Your task to perform on an android device: open sync settings in chrome Image 0: 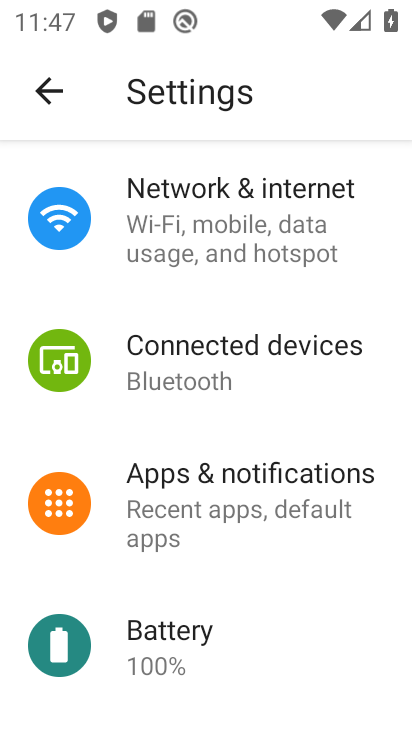
Step 0: press home button
Your task to perform on an android device: open sync settings in chrome Image 1: 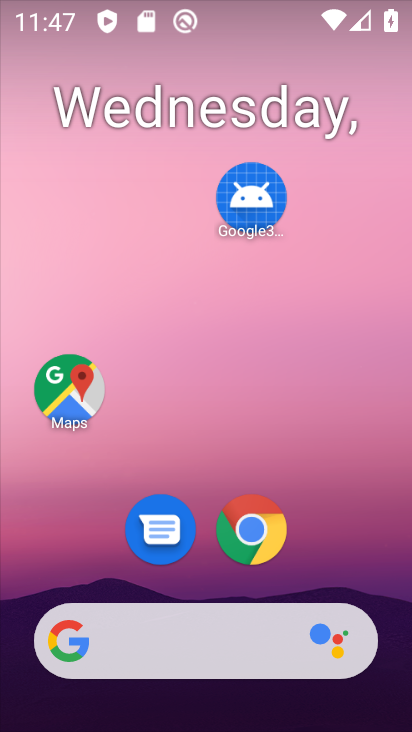
Step 1: click (263, 545)
Your task to perform on an android device: open sync settings in chrome Image 2: 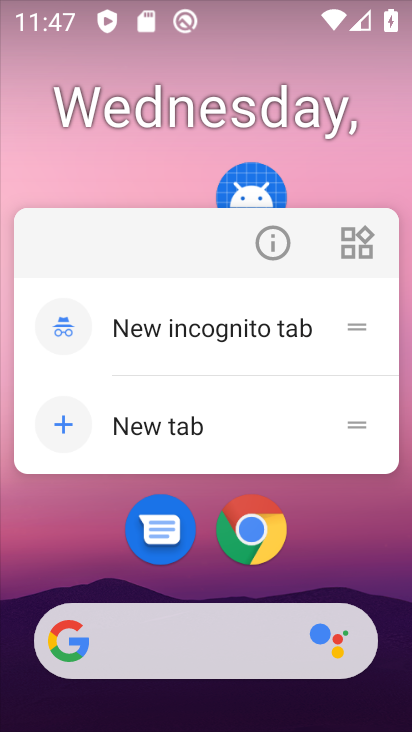
Step 2: click (268, 534)
Your task to perform on an android device: open sync settings in chrome Image 3: 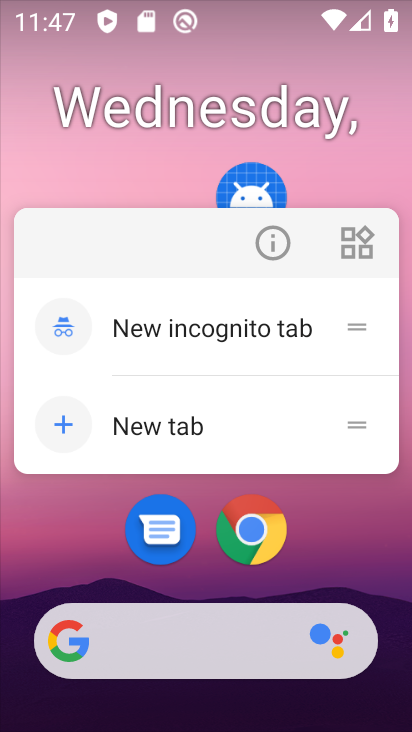
Step 3: click (261, 526)
Your task to perform on an android device: open sync settings in chrome Image 4: 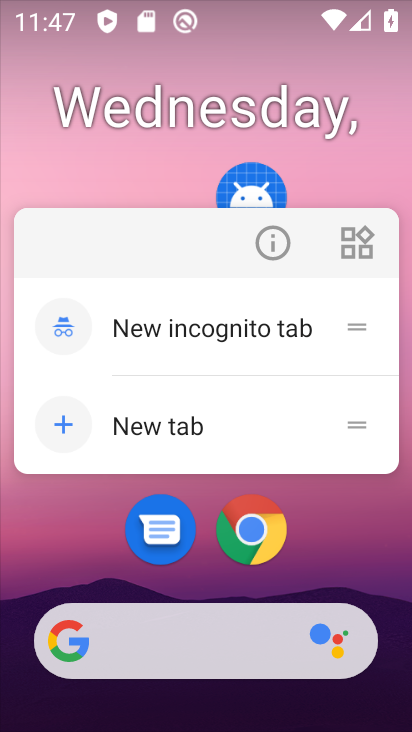
Step 4: click (269, 547)
Your task to perform on an android device: open sync settings in chrome Image 5: 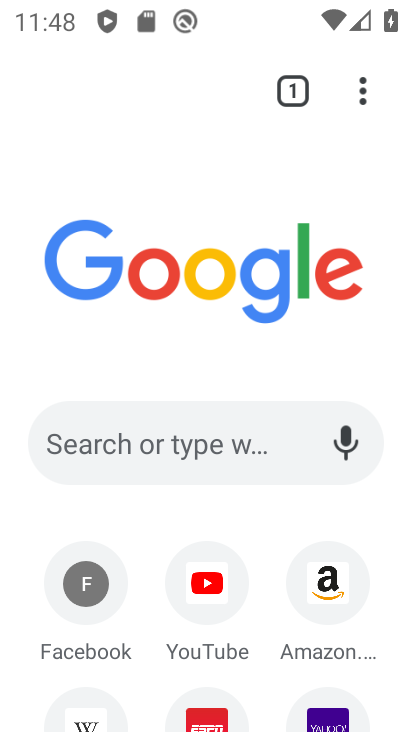
Step 5: drag from (355, 103) to (273, 551)
Your task to perform on an android device: open sync settings in chrome Image 6: 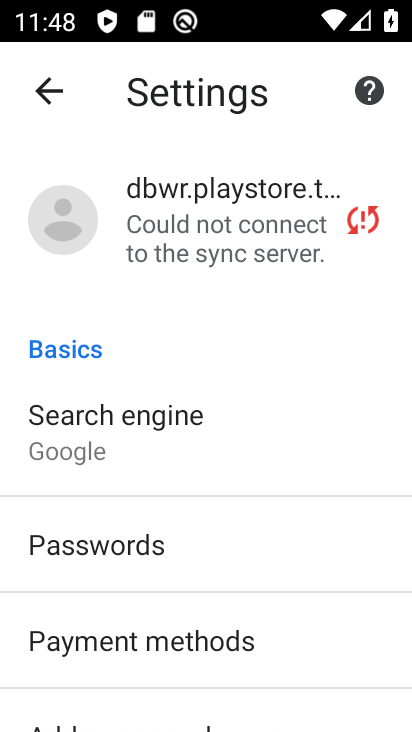
Step 6: drag from (294, 665) to (354, 418)
Your task to perform on an android device: open sync settings in chrome Image 7: 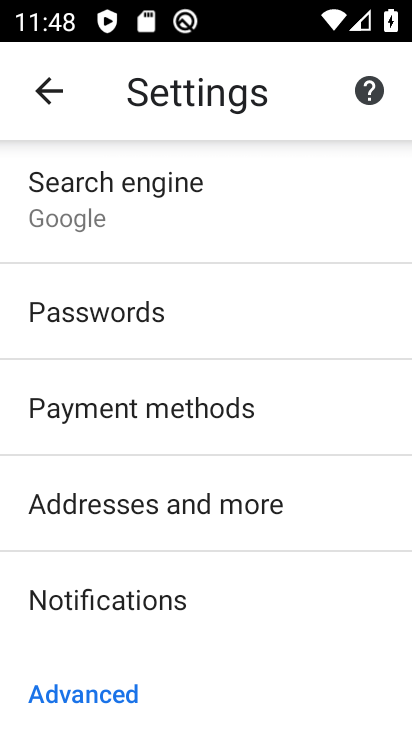
Step 7: drag from (245, 610) to (314, 332)
Your task to perform on an android device: open sync settings in chrome Image 8: 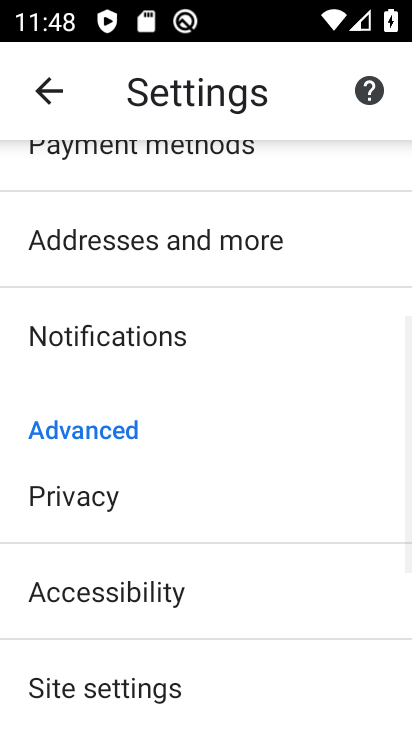
Step 8: drag from (293, 597) to (353, 696)
Your task to perform on an android device: open sync settings in chrome Image 9: 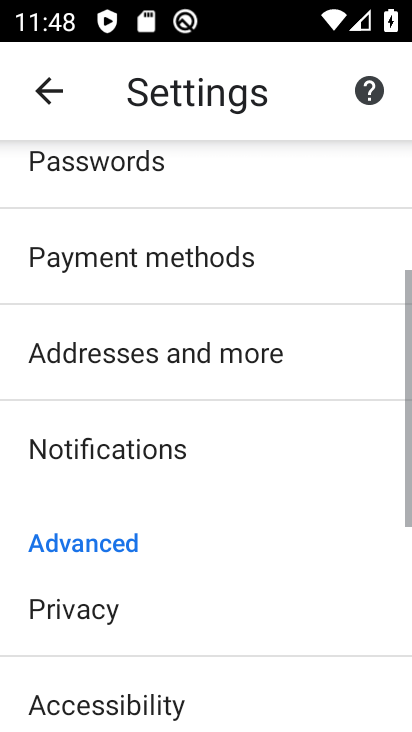
Step 9: drag from (353, 247) to (297, 632)
Your task to perform on an android device: open sync settings in chrome Image 10: 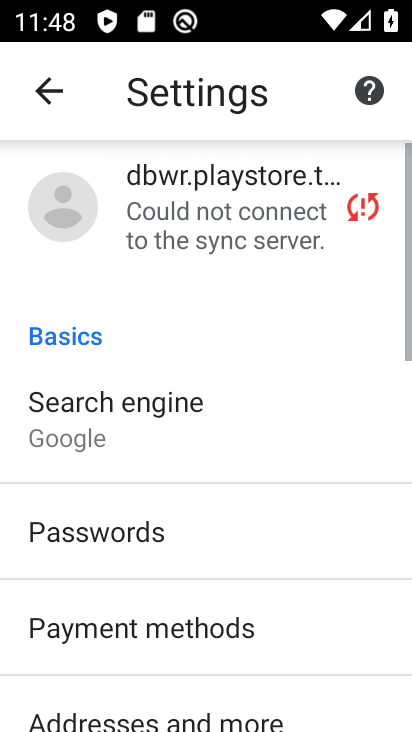
Step 10: click (264, 220)
Your task to perform on an android device: open sync settings in chrome Image 11: 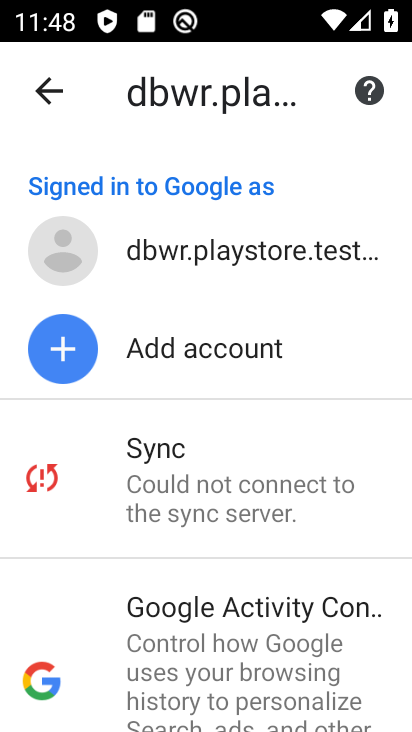
Step 11: click (235, 468)
Your task to perform on an android device: open sync settings in chrome Image 12: 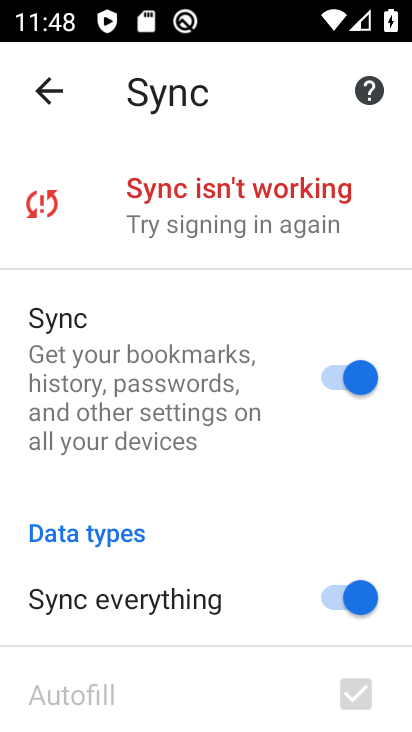
Step 12: task complete